Your task to perform on an android device: turn on sleep mode Image 0: 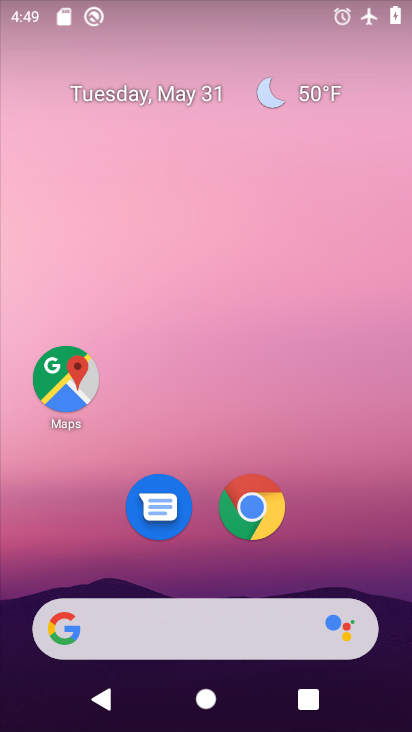
Step 0: drag from (309, 531) to (186, 53)
Your task to perform on an android device: turn on sleep mode Image 1: 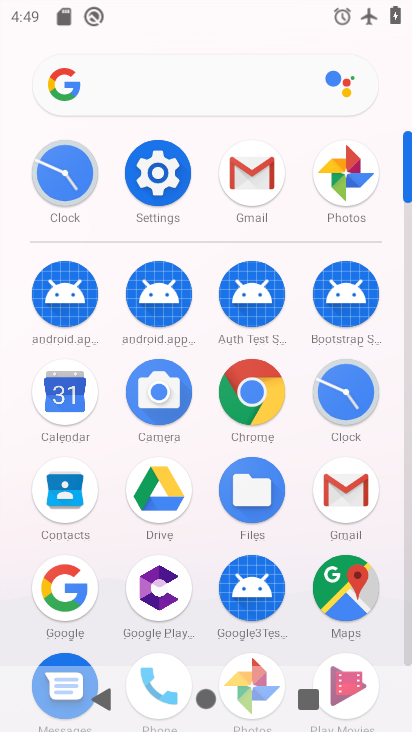
Step 1: click (158, 171)
Your task to perform on an android device: turn on sleep mode Image 2: 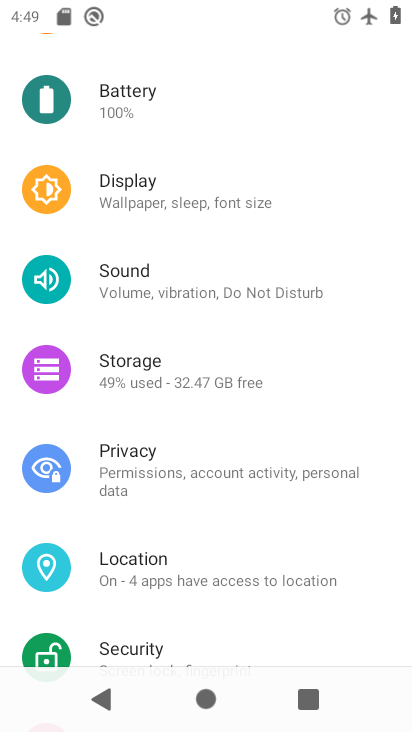
Step 2: click (160, 189)
Your task to perform on an android device: turn on sleep mode Image 3: 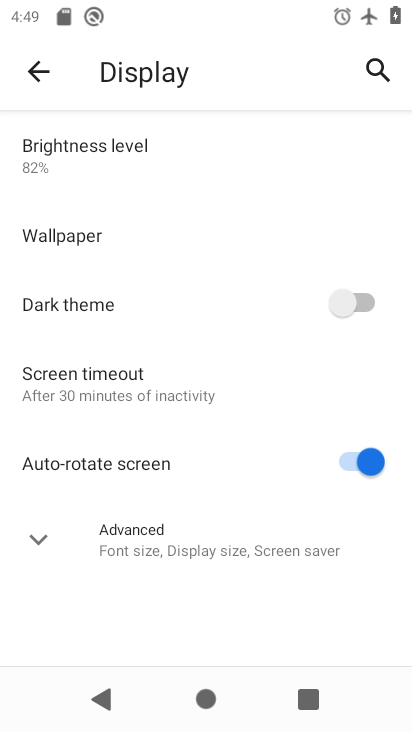
Step 3: click (42, 538)
Your task to perform on an android device: turn on sleep mode Image 4: 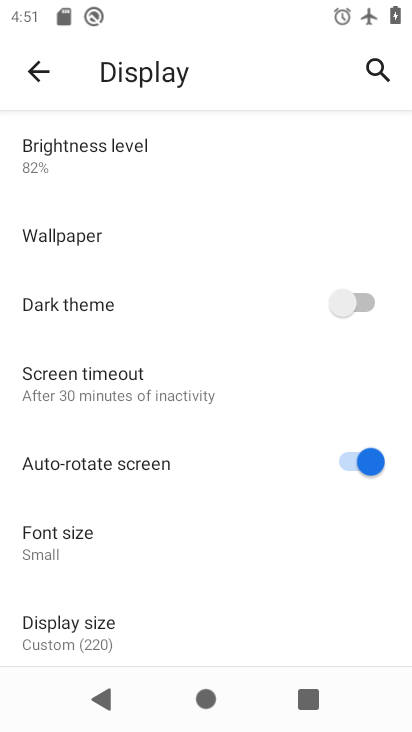
Step 4: task complete